Your task to perform on an android device: What's on my calendar today? Image 0: 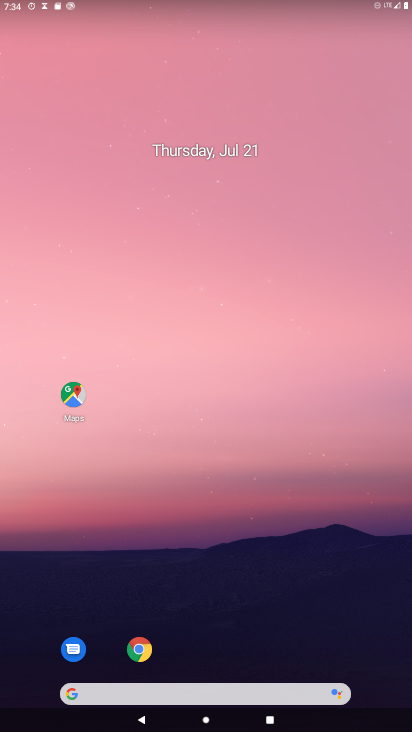
Step 0: drag from (365, 644) to (141, 48)
Your task to perform on an android device: What's on my calendar today? Image 1: 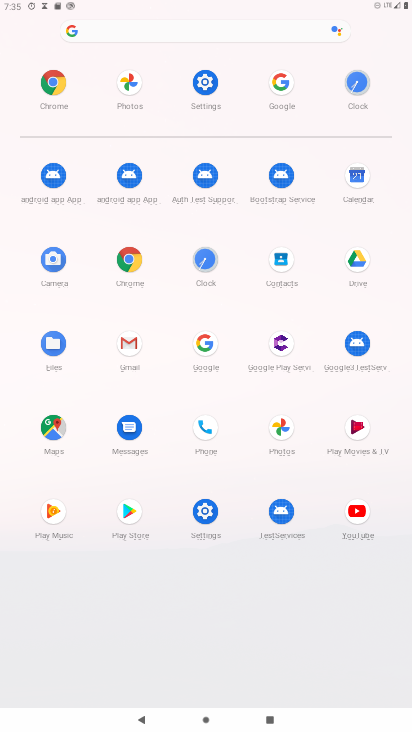
Step 1: click (356, 171)
Your task to perform on an android device: What's on my calendar today? Image 2: 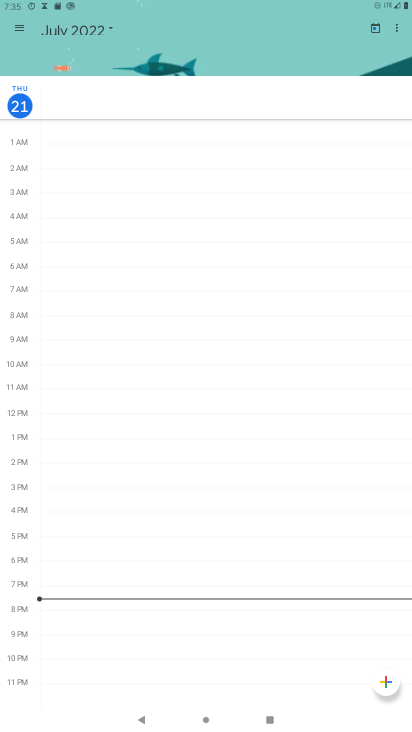
Step 2: task complete